Your task to perform on an android device: What is the recent news? Image 0: 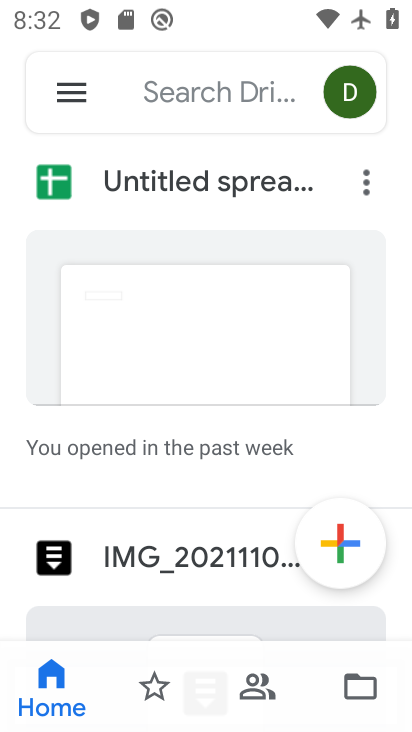
Step 0: press back button
Your task to perform on an android device: What is the recent news? Image 1: 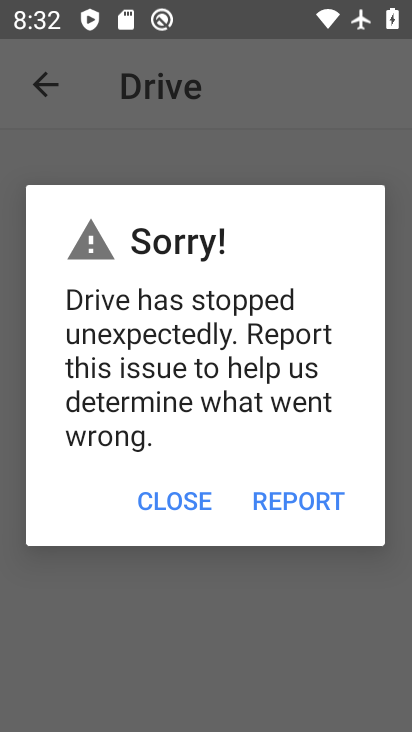
Step 1: press home button
Your task to perform on an android device: What is the recent news? Image 2: 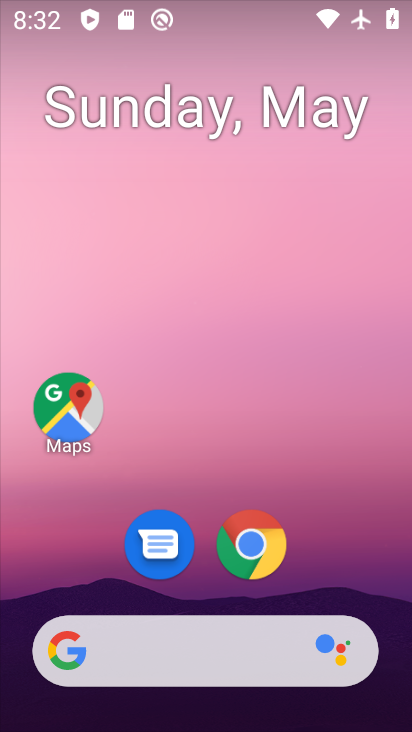
Step 2: drag from (338, 588) to (235, 5)
Your task to perform on an android device: What is the recent news? Image 3: 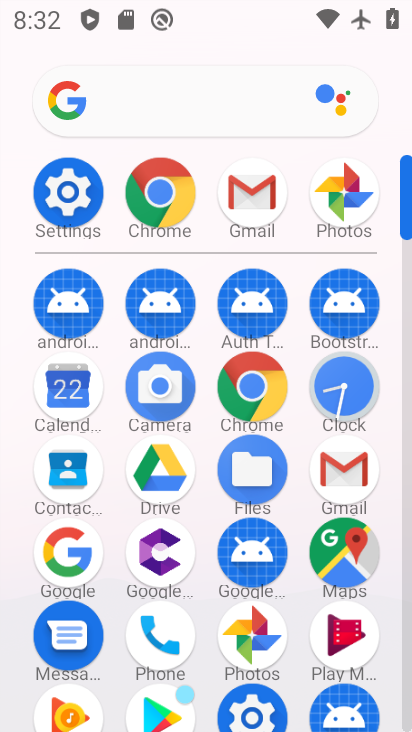
Step 3: click (157, 186)
Your task to perform on an android device: What is the recent news? Image 4: 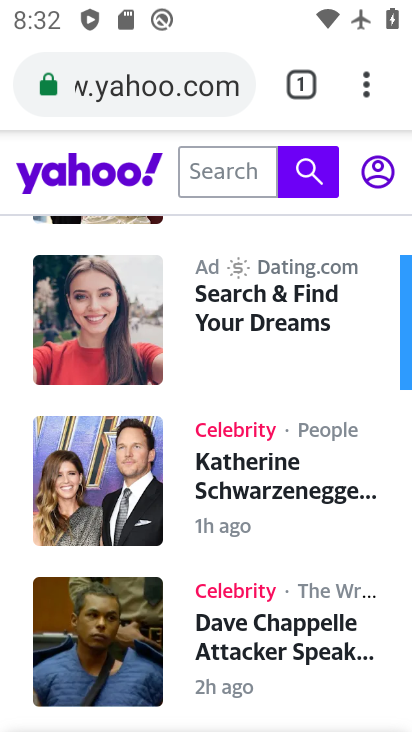
Step 4: click (158, 71)
Your task to perform on an android device: What is the recent news? Image 5: 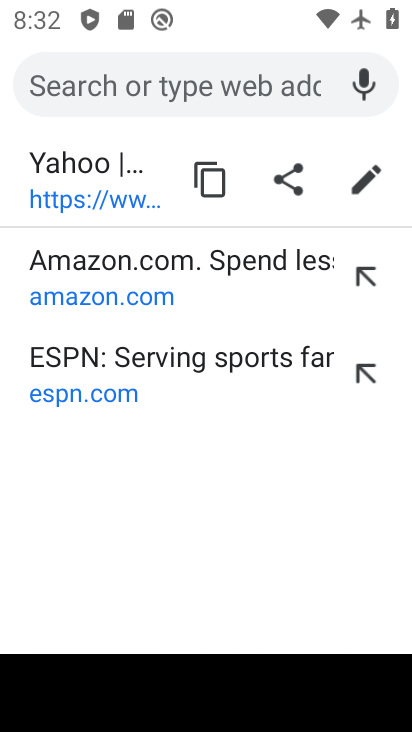
Step 5: type "What is the recent news?"
Your task to perform on an android device: What is the recent news? Image 6: 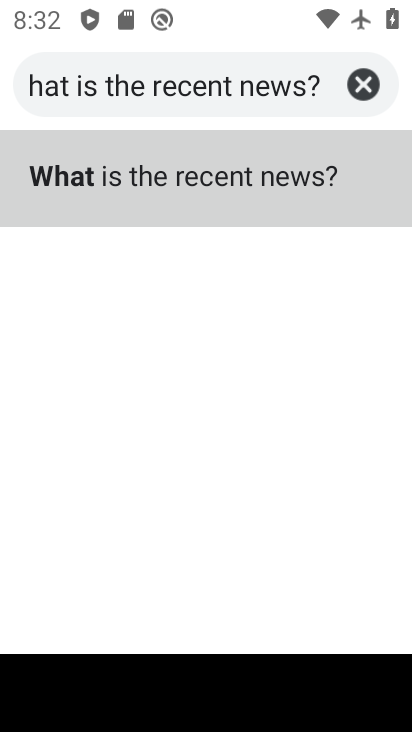
Step 6: click (161, 160)
Your task to perform on an android device: What is the recent news? Image 7: 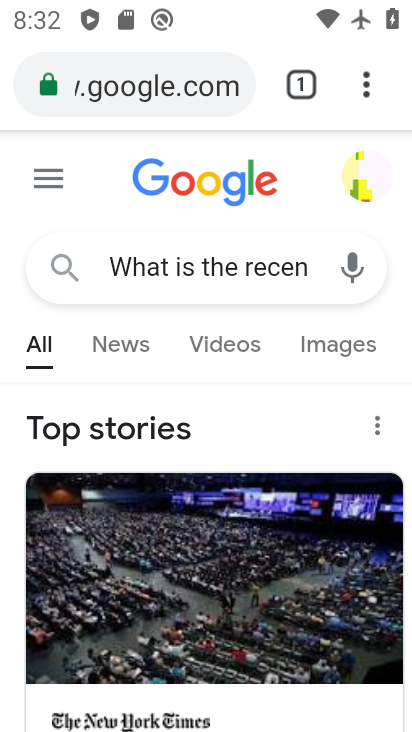
Step 7: task complete